Your task to perform on an android device: Open wifi settings Image 0: 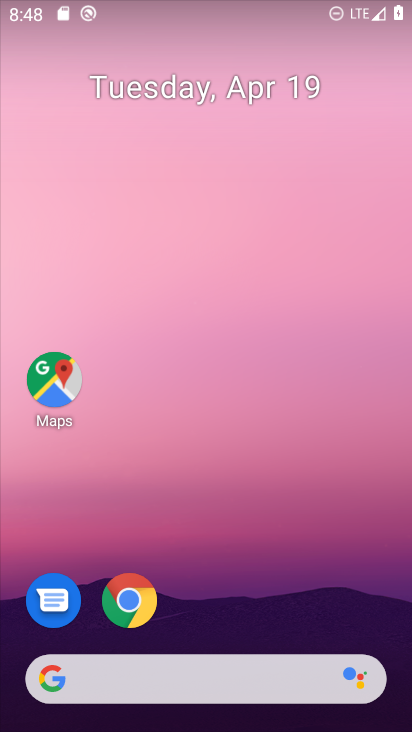
Step 0: drag from (244, 621) to (246, 150)
Your task to perform on an android device: Open wifi settings Image 1: 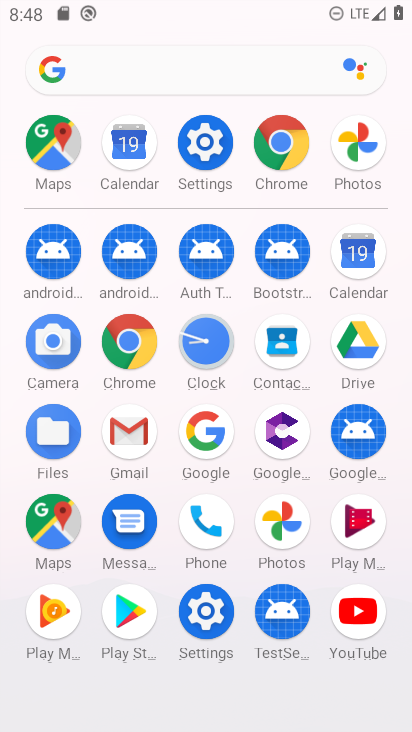
Step 1: click (193, 154)
Your task to perform on an android device: Open wifi settings Image 2: 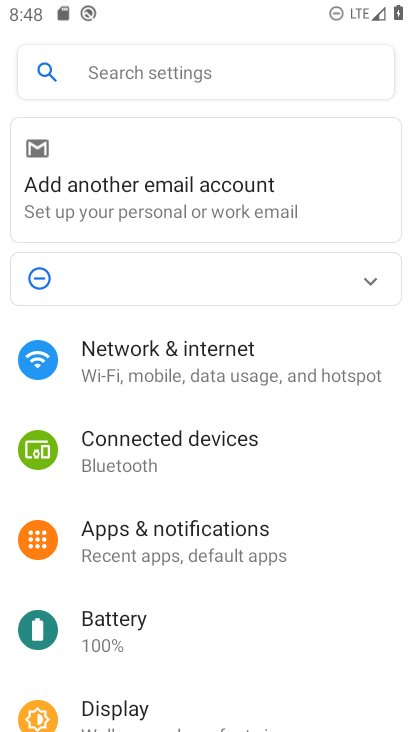
Step 2: click (177, 361)
Your task to perform on an android device: Open wifi settings Image 3: 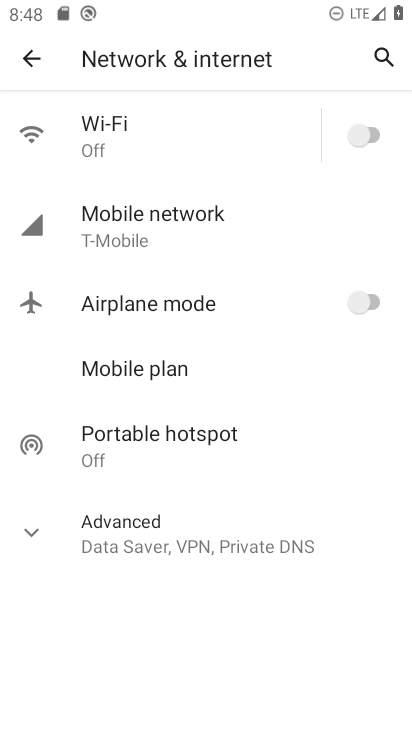
Step 3: click (160, 129)
Your task to perform on an android device: Open wifi settings Image 4: 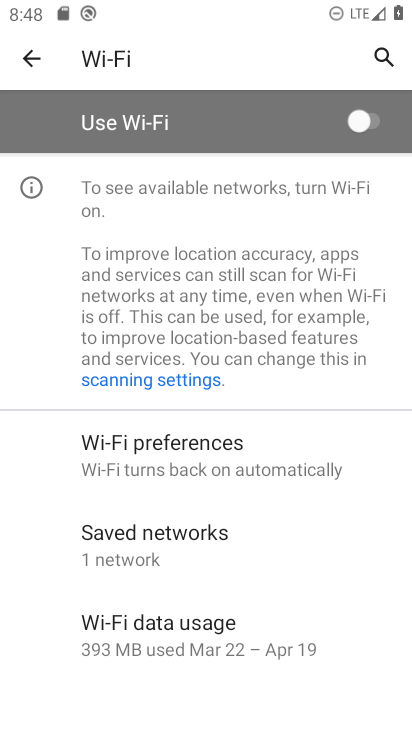
Step 4: task complete